Your task to perform on an android device: Go to CNN.com Image 0: 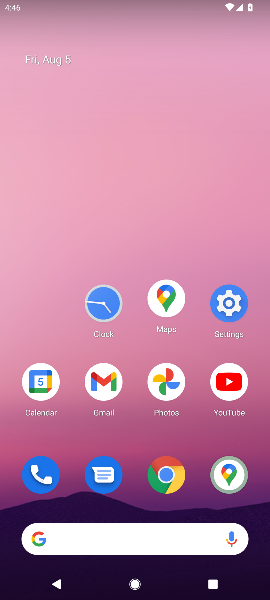
Step 0: click (167, 472)
Your task to perform on an android device: Go to CNN.com Image 1: 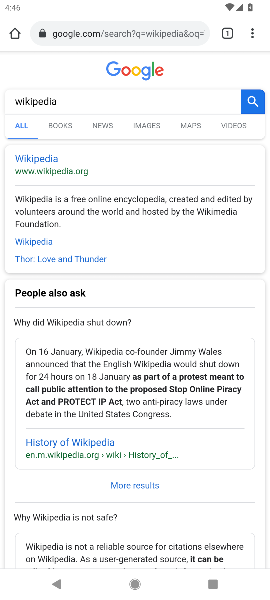
Step 1: click (158, 33)
Your task to perform on an android device: Go to CNN.com Image 2: 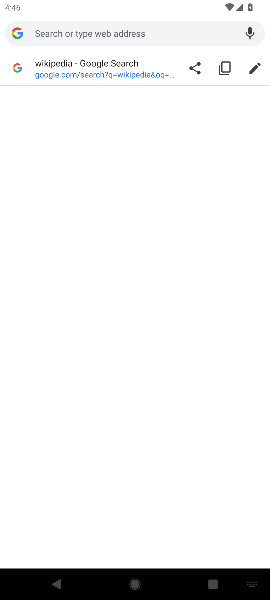
Step 2: type "CNN.com"
Your task to perform on an android device: Go to CNN.com Image 3: 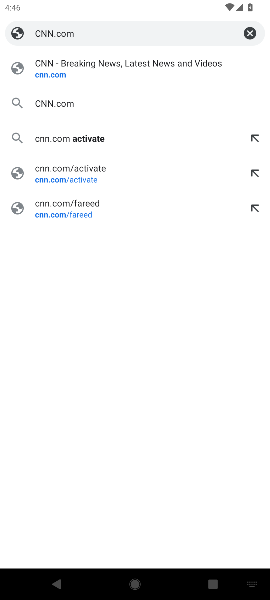
Step 3: click (49, 100)
Your task to perform on an android device: Go to CNN.com Image 4: 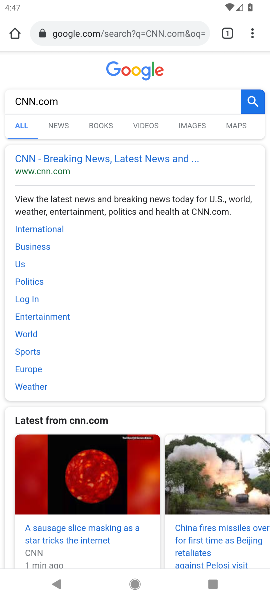
Step 4: task complete